Your task to perform on an android device: open sync settings in chrome Image 0: 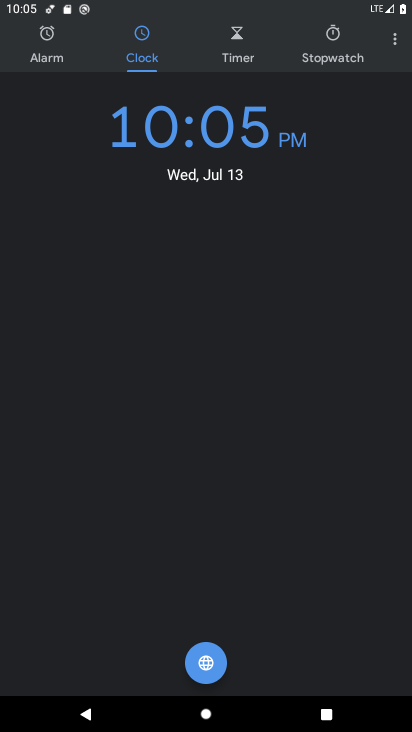
Step 0: press home button
Your task to perform on an android device: open sync settings in chrome Image 1: 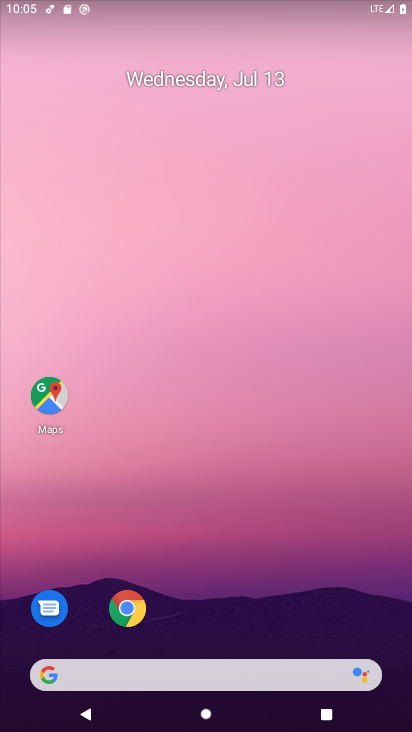
Step 1: click (131, 615)
Your task to perform on an android device: open sync settings in chrome Image 2: 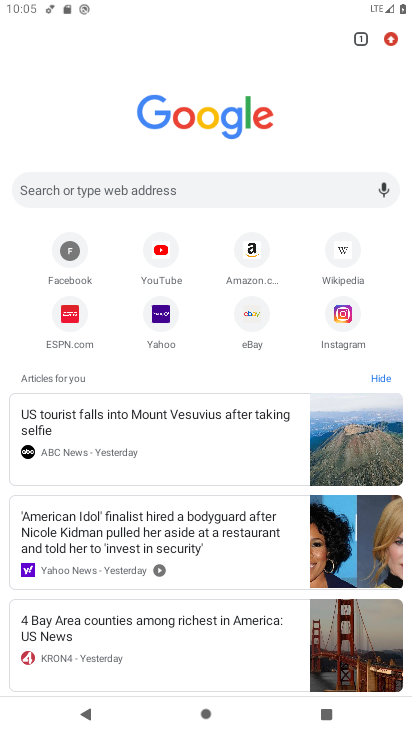
Step 2: click (388, 40)
Your task to perform on an android device: open sync settings in chrome Image 3: 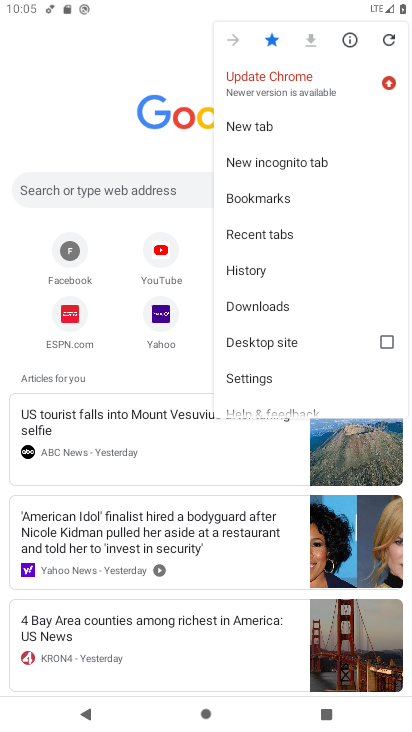
Step 3: click (253, 373)
Your task to perform on an android device: open sync settings in chrome Image 4: 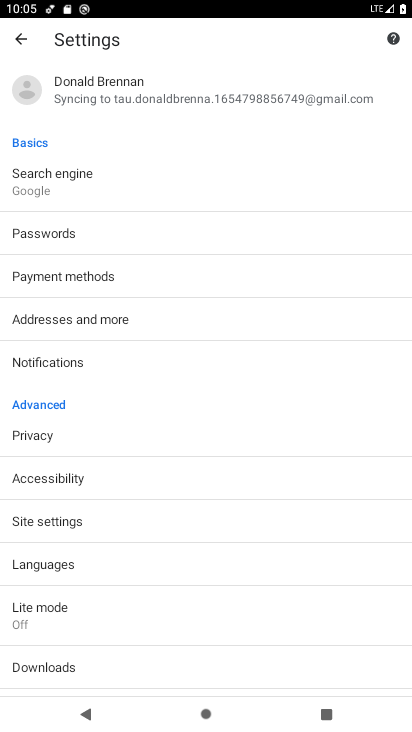
Step 4: click (93, 84)
Your task to perform on an android device: open sync settings in chrome Image 5: 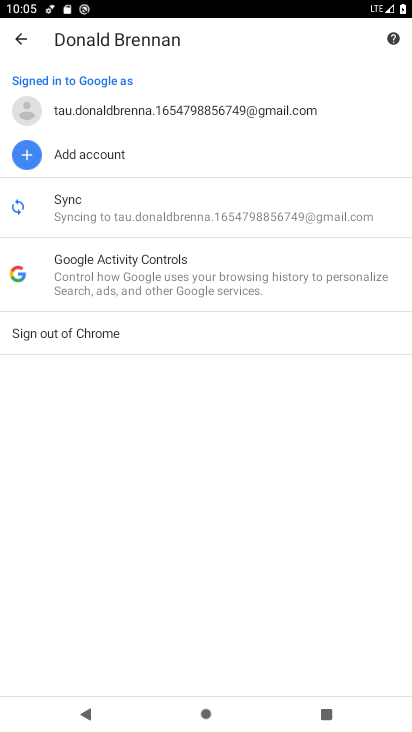
Step 5: click (91, 204)
Your task to perform on an android device: open sync settings in chrome Image 6: 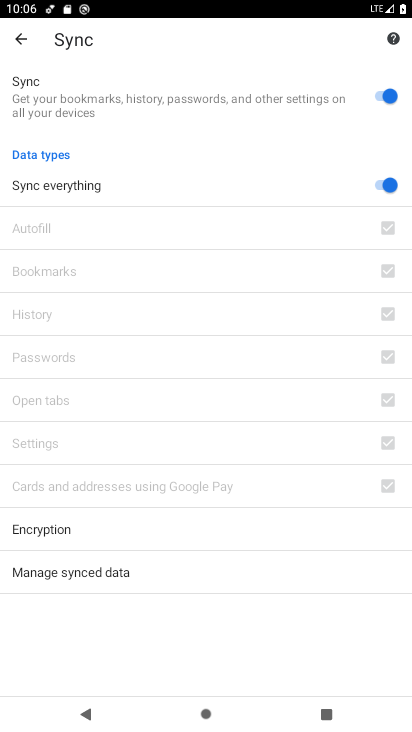
Step 6: task complete